Your task to perform on an android device: turn on notifications settings in the gmail app Image 0: 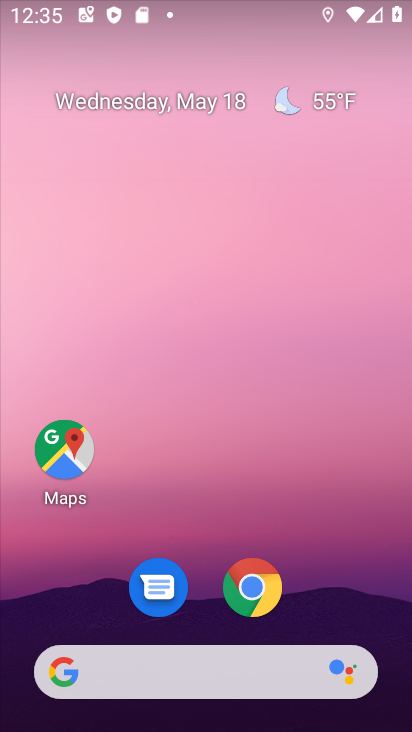
Step 0: drag from (301, 591) to (287, 137)
Your task to perform on an android device: turn on notifications settings in the gmail app Image 1: 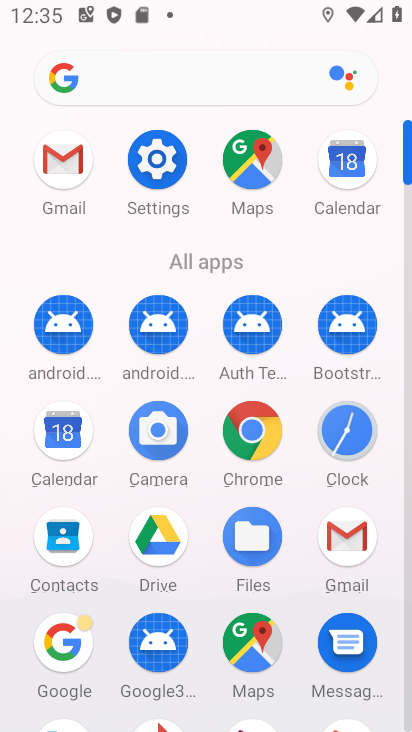
Step 1: click (64, 171)
Your task to perform on an android device: turn on notifications settings in the gmail app Image 2: 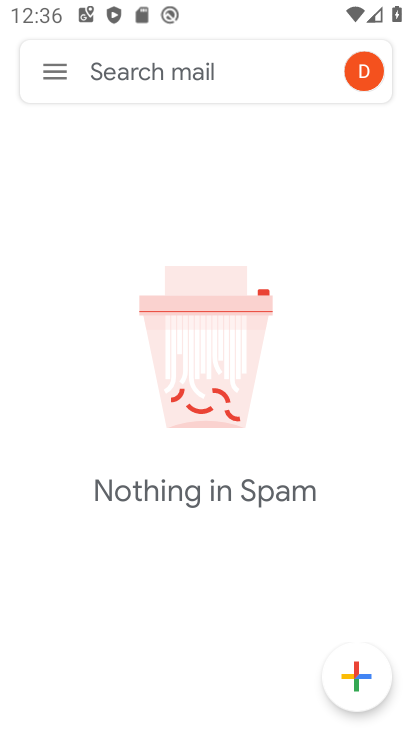
Step 2: click (54, 74)
Your task to perform on an android device: turn on notifications settings in the gmail app Image 3: 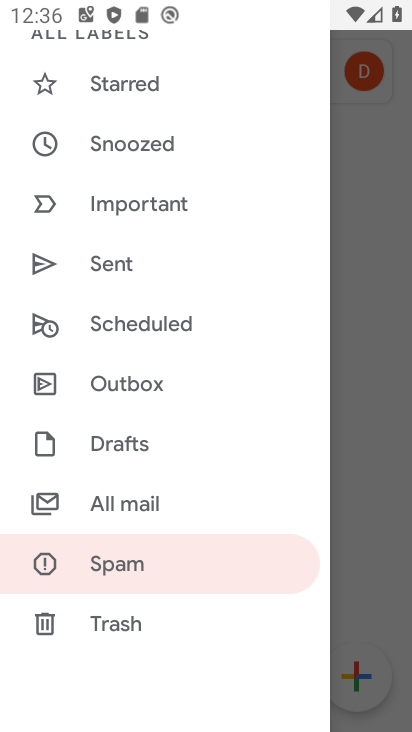
Step 3: drag from (167, 596) to (219, 252)
Your task to perform on an android device: turn on notifications settings in the gmail app Image 4: 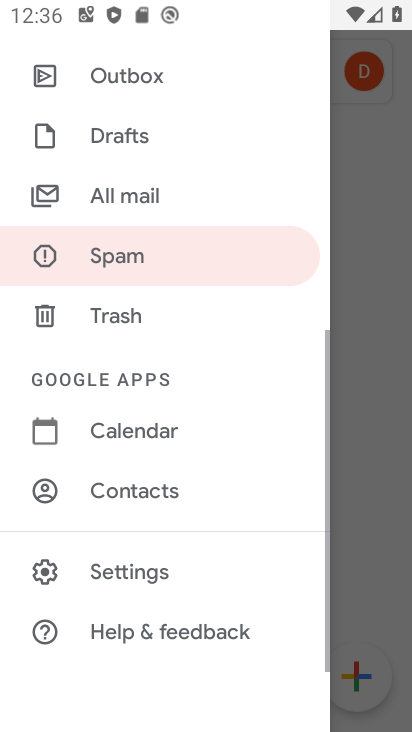
Step 4: click (141, 576)
Your task to perform on an android device: turn on notifications settings in the gmail app Image 5: 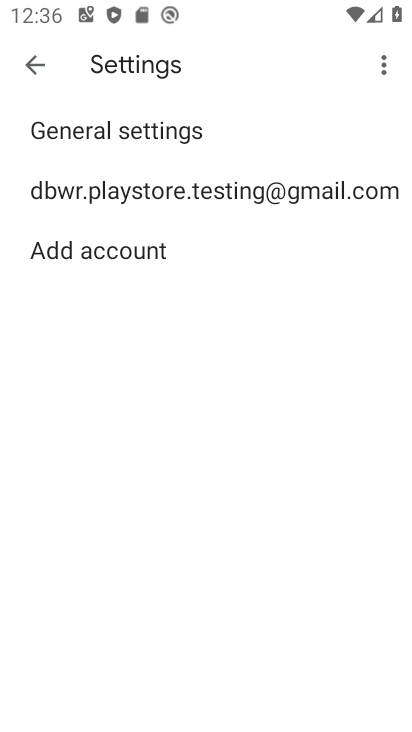
Step 5: click (170, 193)
Your task to perform on an android device: turn on notifications settings in the gmail app Image 6: 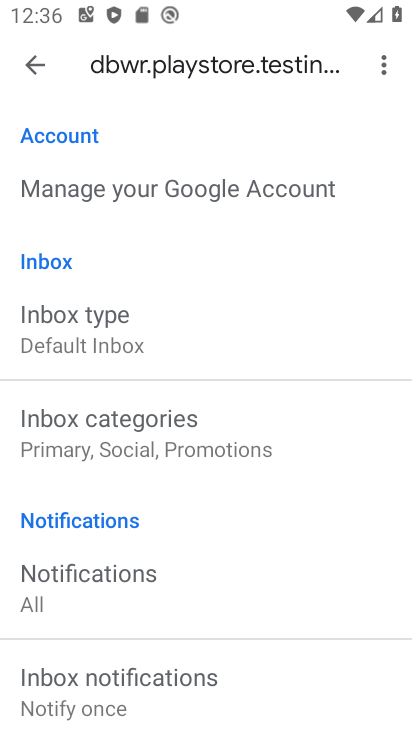
Step 6: click (71, 598)
Your task to perform on an android device: turn on notifications settings in the gmail app Image 7: 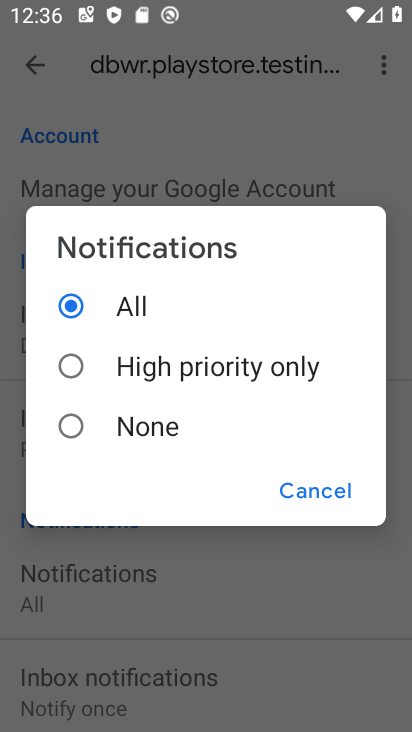
Step 7: task complete